Your task to perform on an android device: delete a single message in the gmail app Image 0: 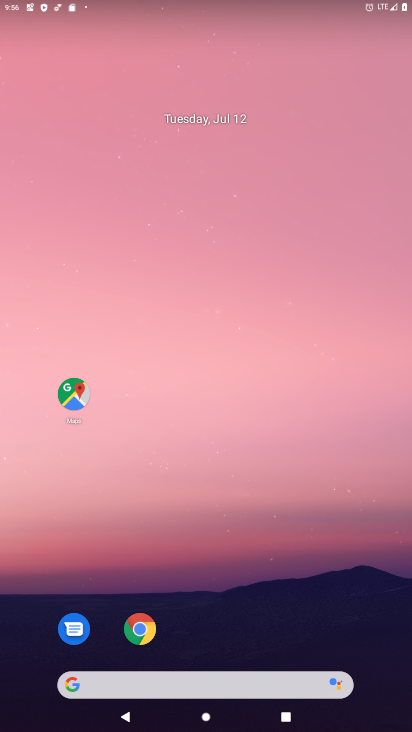
Step 0: drag from (361, 664) to (322, 40)
Your task to perform on an android device: delete a single message in the gmail app Image 1: 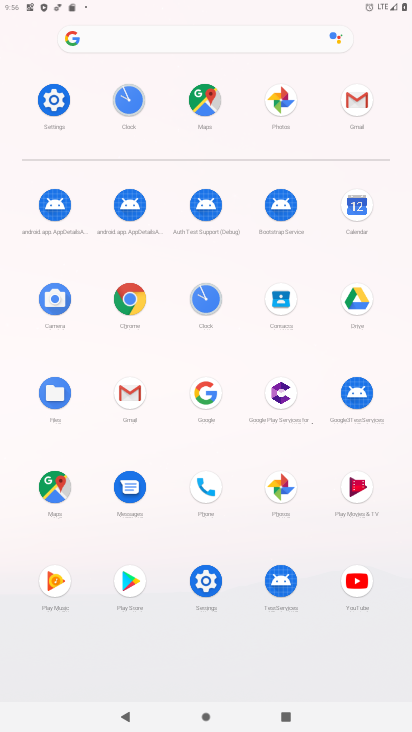
Step 1: click (127, 396)
Your task to perform on an android device: delete a single message in the gmail app Image 2: 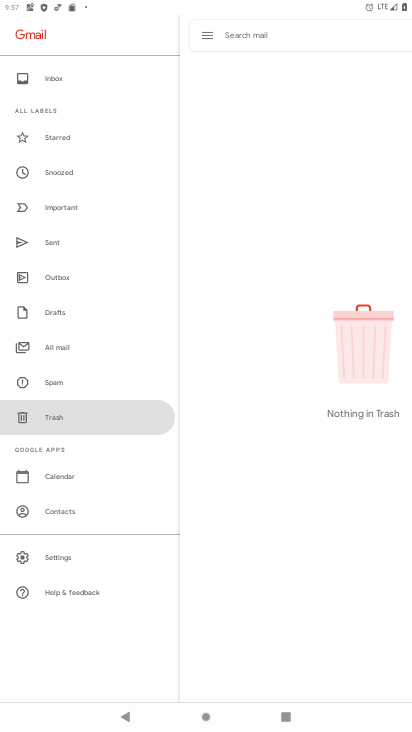
Step 2: click (61, 347)
Your task to perform on an android device: delete a single message in the gmail app Image 3: 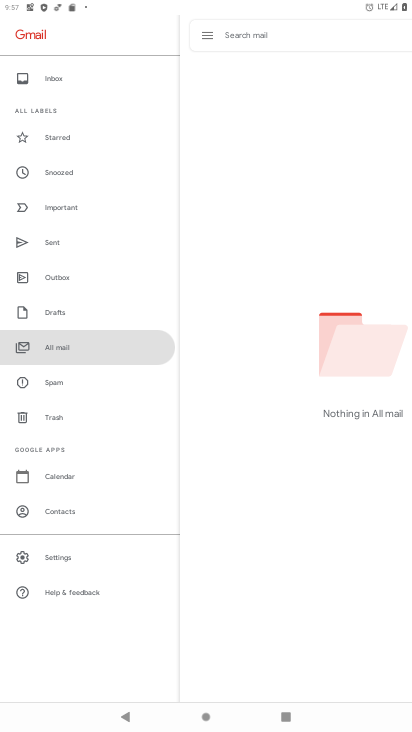
Step 3: task complete